Your task to perform on an android device: change your default location settings in chrome Image 0: 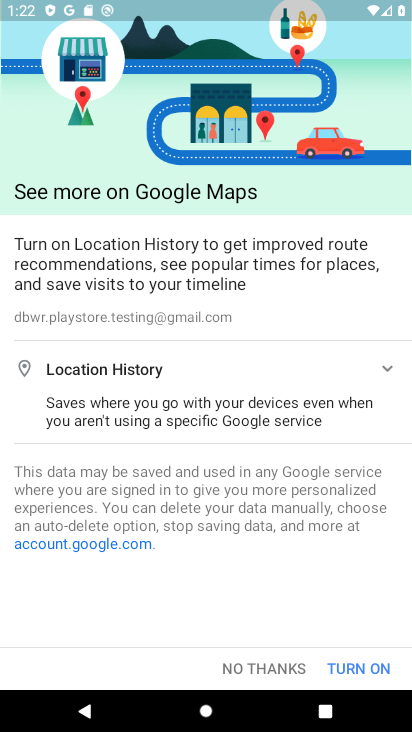
Step 0: press home button
Your task to perform on an android device: change your default location settings in chrome Image 1: 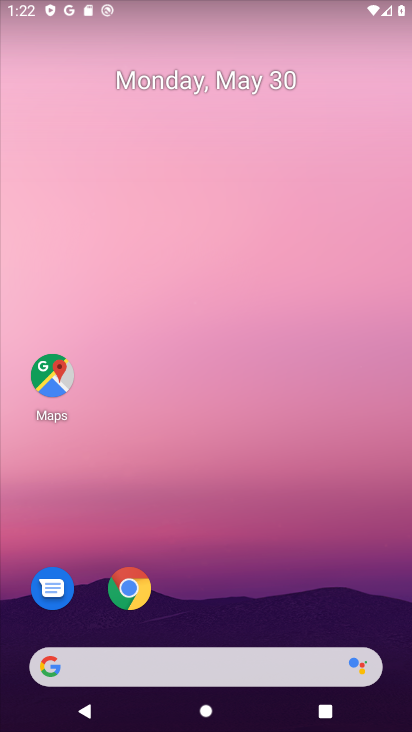
Step 1: click (130, 588)
Your task to perform on an android device: change your default location settings in chrome Image 2: 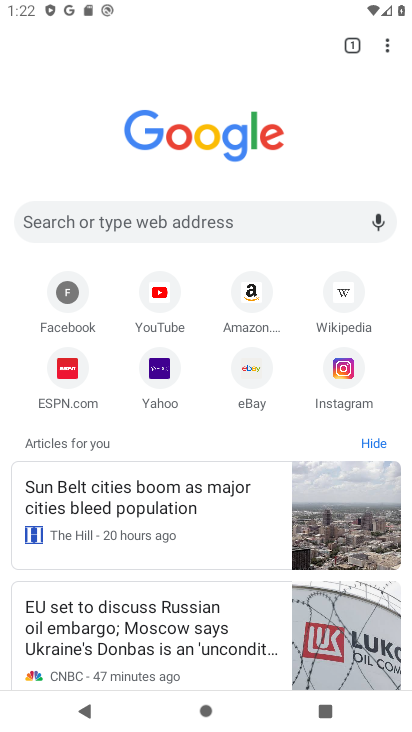
Step 2: click (387, 45)
Your task to perform on an android device: change your default location settings in chrome Image 3: 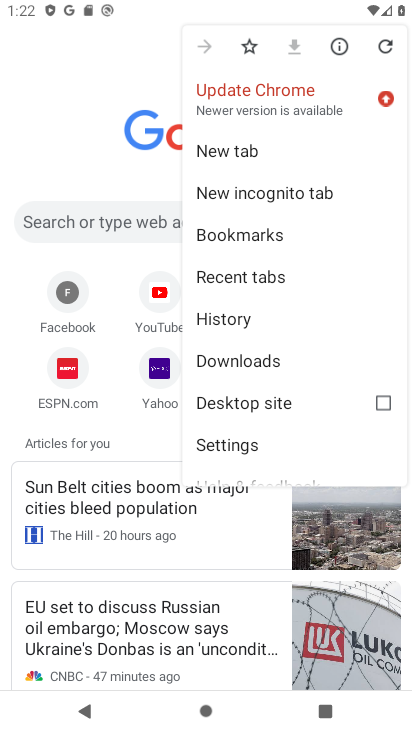
Step 3: click (242, 445)
Your task to perform on an android device: change your default location settings in chrome Image 4: 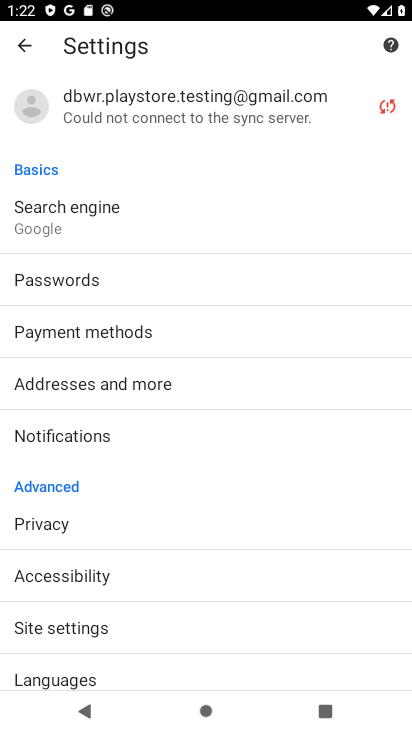
Step 4: drag from (121, 529) to (146, 416)
Your task to perform on an android device: change your default location settings in chrome Image 5: 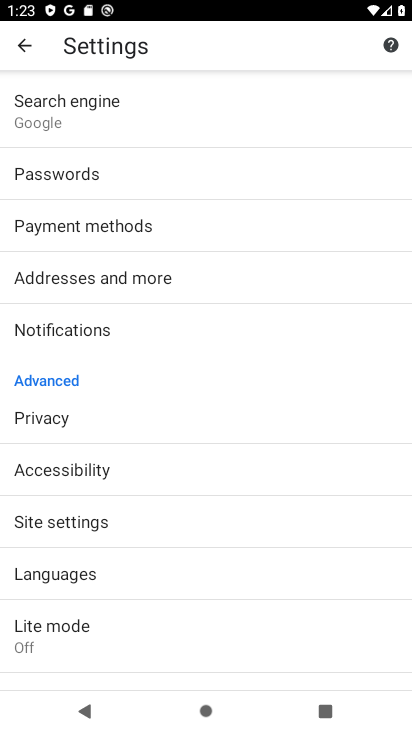
Step 5: click (96, 523)
Your task to perform on an android device: change your default location settings in chrome Image 6: 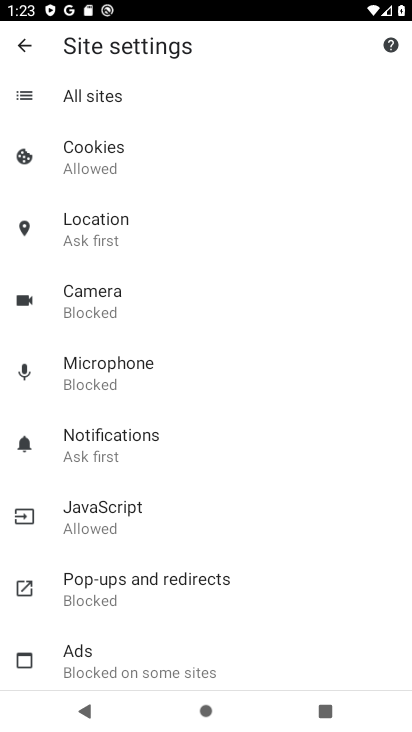
Step 6: click (103, 242)
Your task to perform on an android device: change your default location settings in chrome Image 7: 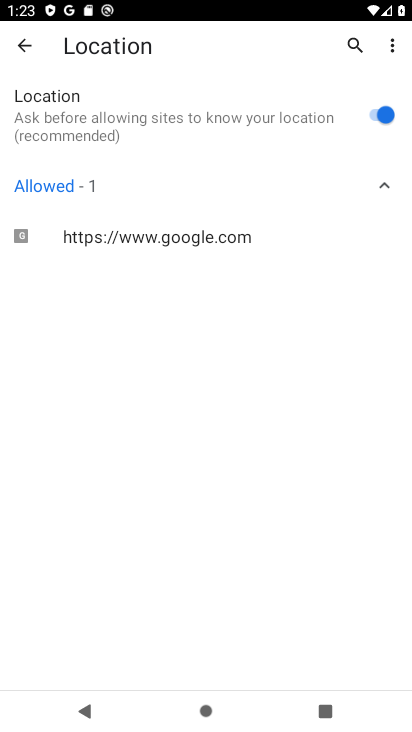
Step 7: task complete